Your task to perform on an android device: open app "Truecaller" Image 0: 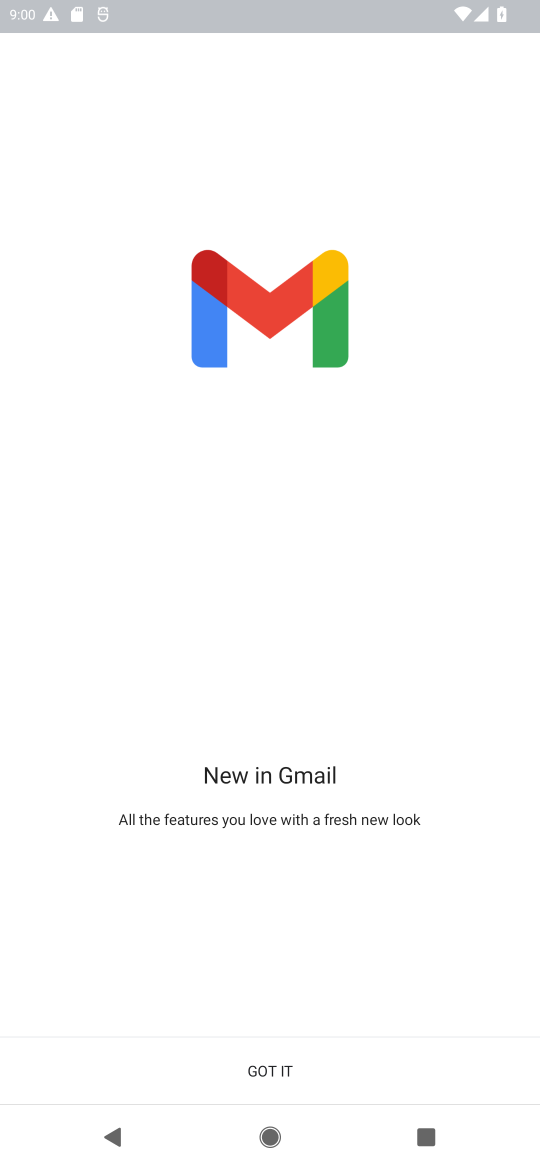
Step 0: press home button
Your task to perform on an android device: open app "Truecaller" Image 1: 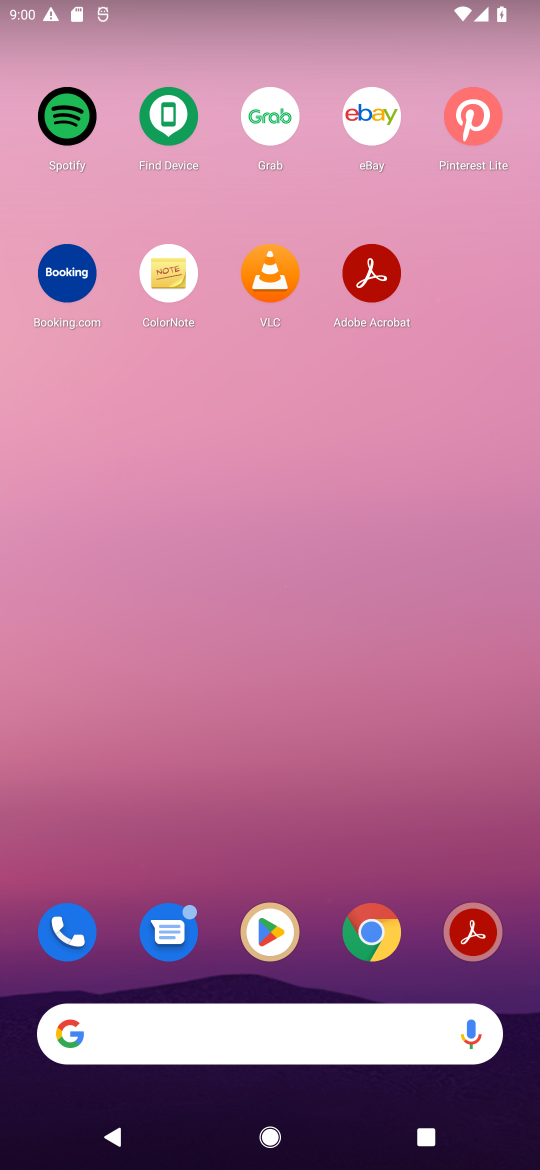
Step 1: click (245, 922)
Your task to perform on an android device: open app "Truecaller" Image 2: 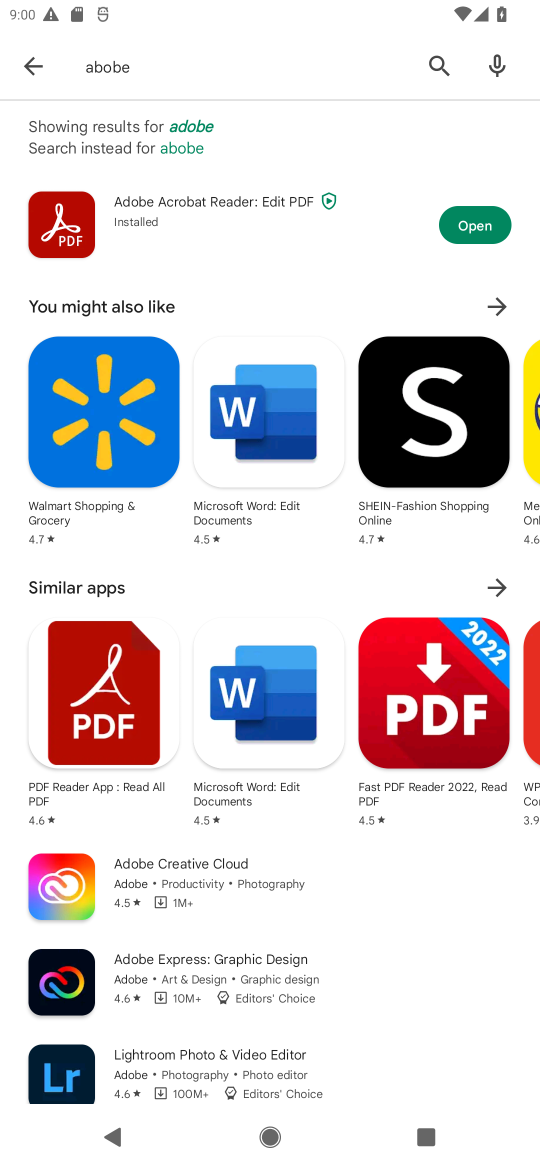
Step 2: click (442, 69)
Your task to perform on an android device: open app "Truecaller" Image 3: 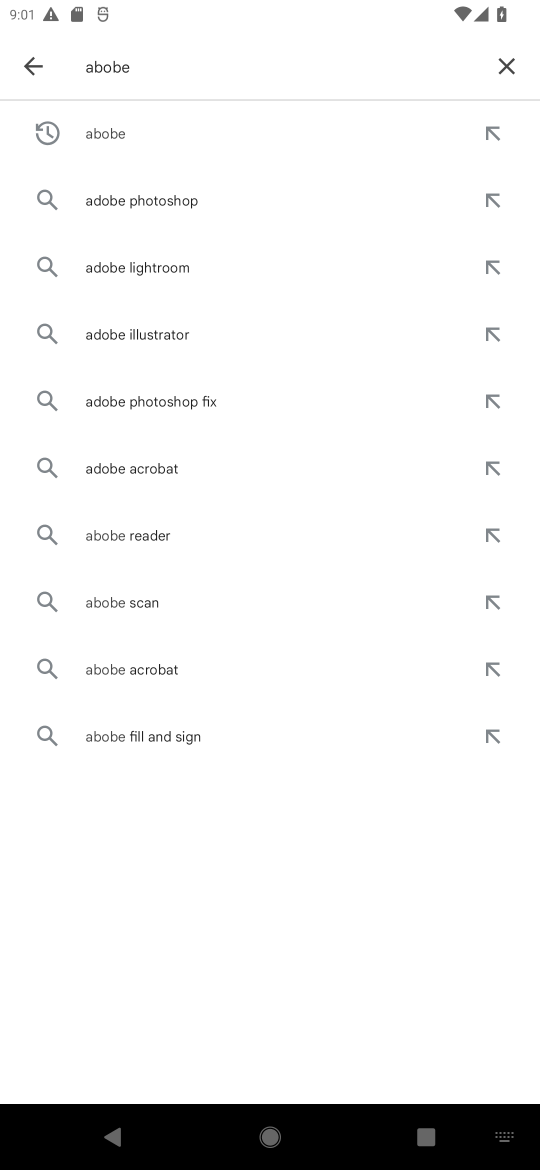
Step 3: click (503, 69)
Your task to perform on an android device: open app "Truecaller" Image 4: 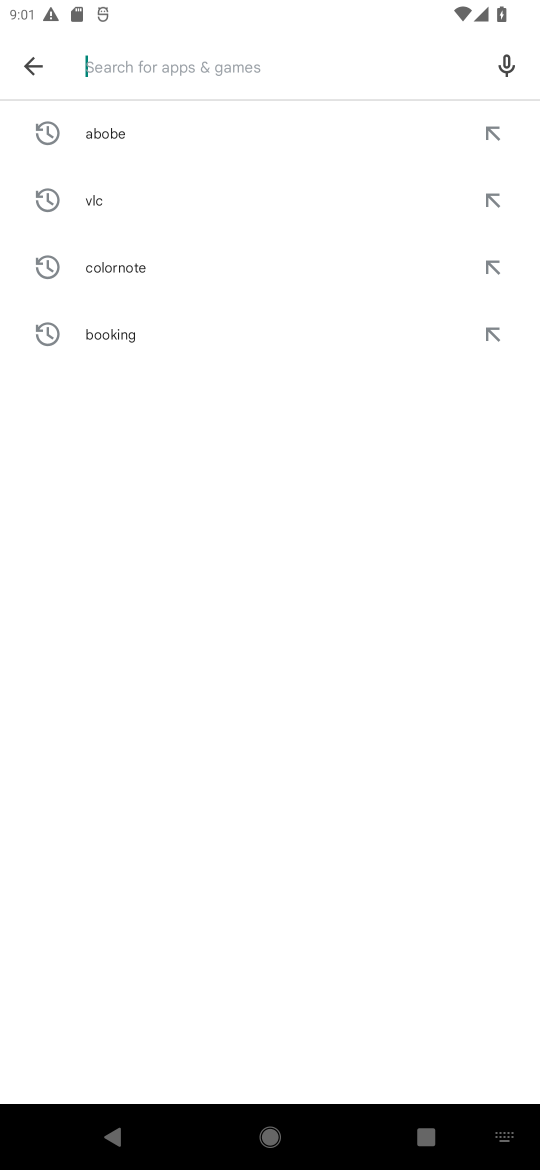
Step 4: type "true caller"
Your task to perform on an android device: open app "Truecaller" Image 5: 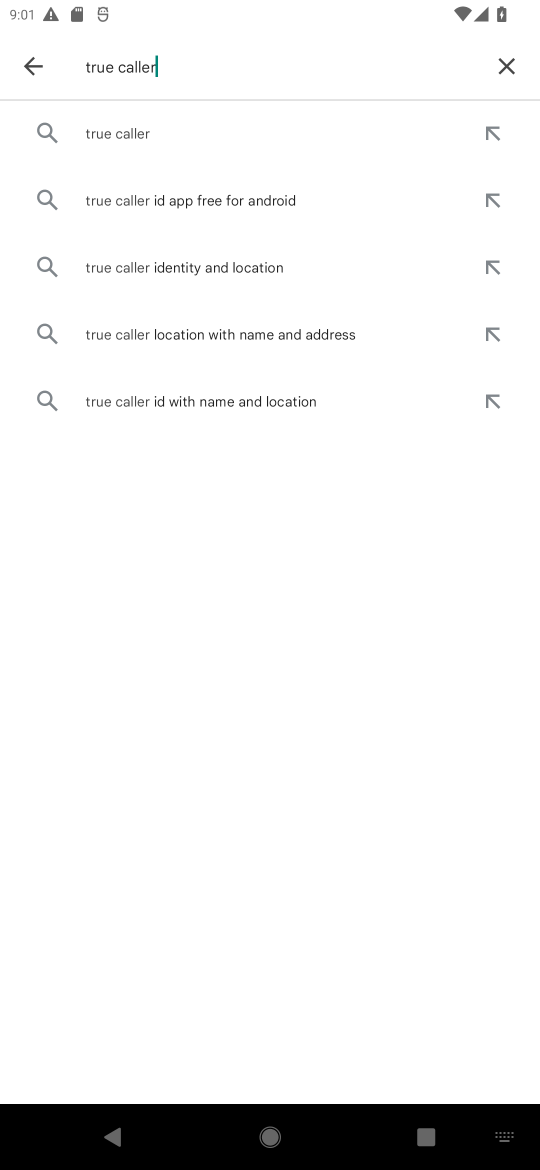
Step 5: click (219, 127)
Your task to perform on an android device: open app "Truecaller" Image 6: 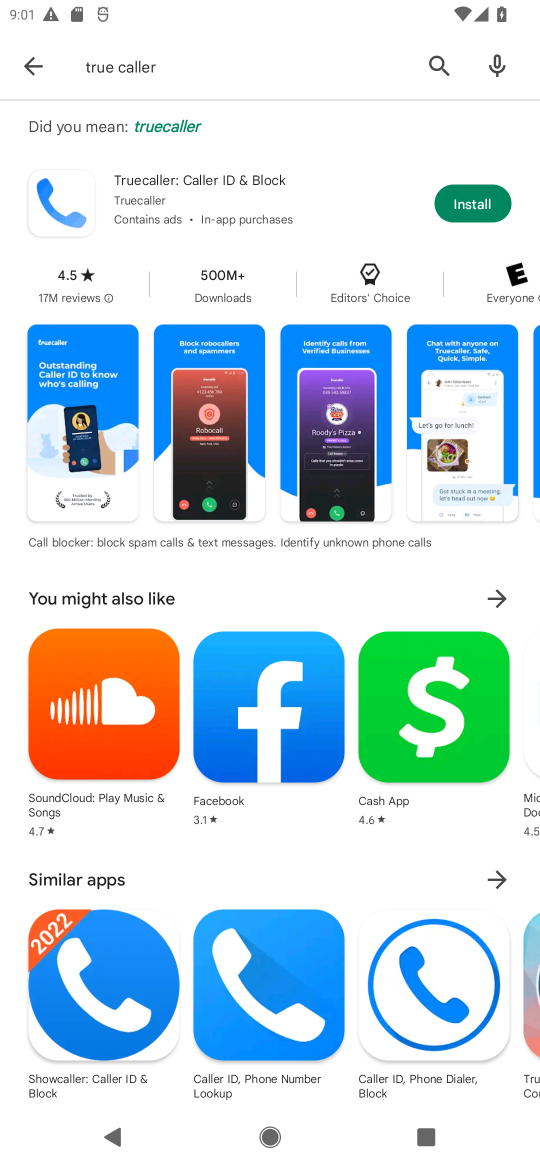
Step 6: click (491, 199)
Your task to perform on an android device: open app "Truecaller" Image 7: 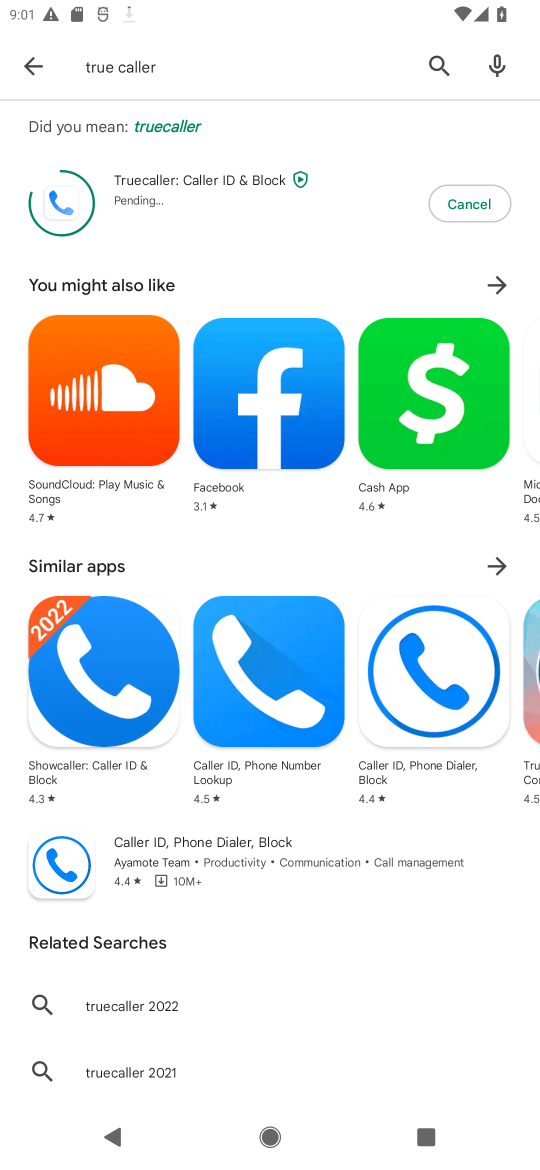
Step 7: task complete